Your task to perform on an android device: Go to internet settings Image 0: 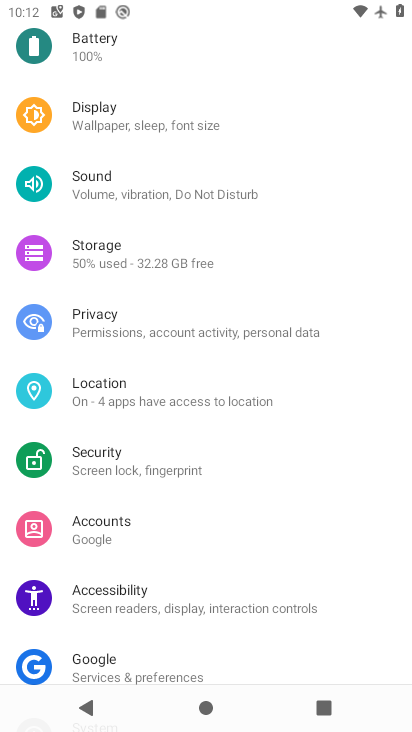
Step 0: press home button
Your task to perform on an android device: Go to internet settings Image 1: 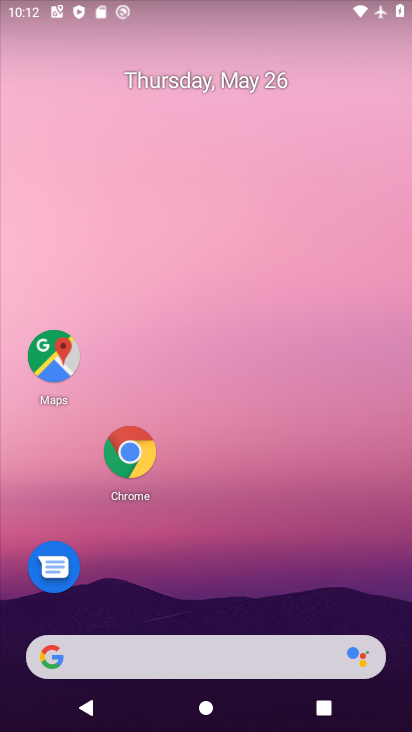
Step 1: drag from (190, 659) to (283, 82)
Your task to perform on an android device: Go to internet settings Image 2: 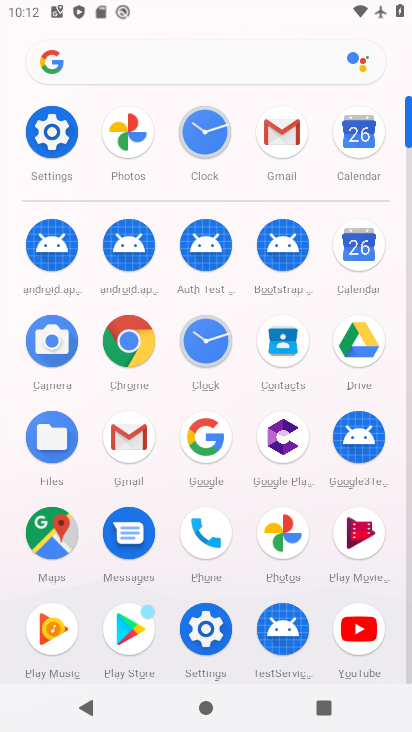
Step 2: click (55, 125)
Your task to perform on an android device: Go to internet settings Image 3: 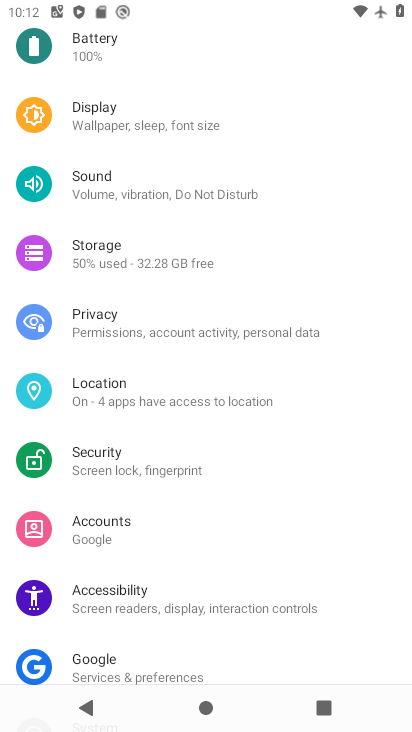
Step 3: drag from (238, 95) to (180, 566)
Your task to perform on an android device: Go to internet settings Image 4: 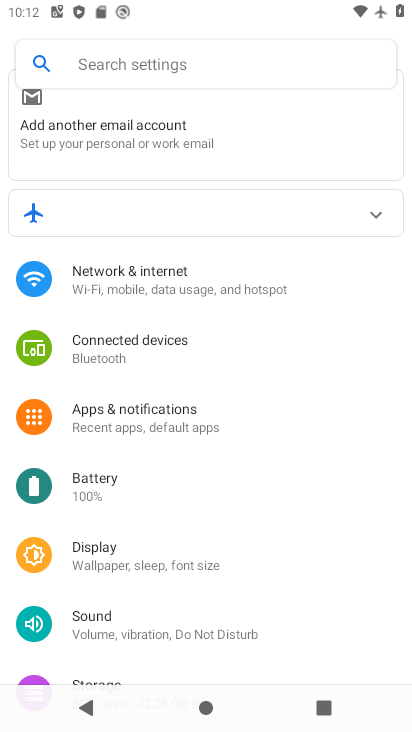
Step 4: click (151, 285)
Your task to perform on an android device: Go to internet settings Image 5: 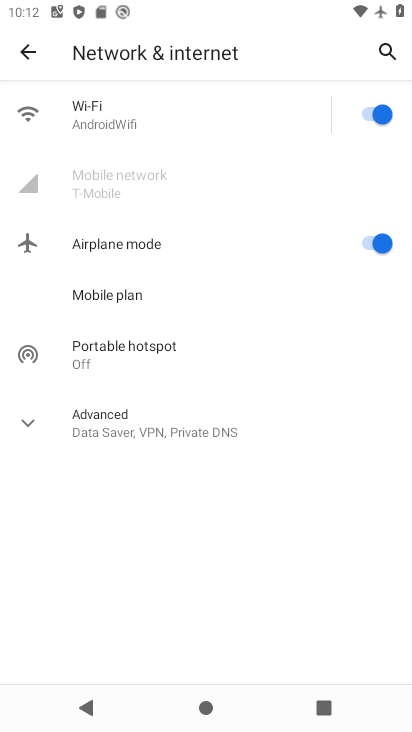
Step 5: task complete